Your task to perform on an android device: Go to CNN.com Image 0: 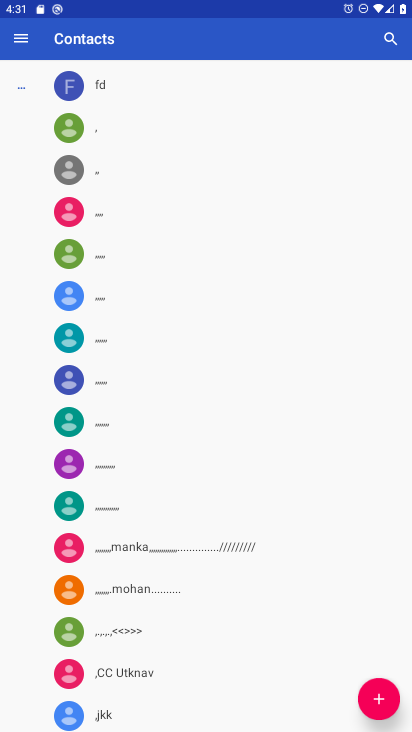
Step 0: press home button
Your task to perform on an android device: Go to CNN.com Image 1: 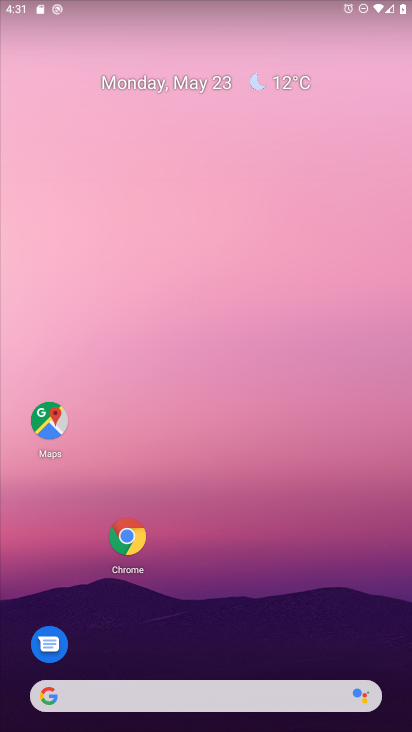
Step 1: click (127, 544)
Your task to perform on an android device: Go to CNN.com Image 2: 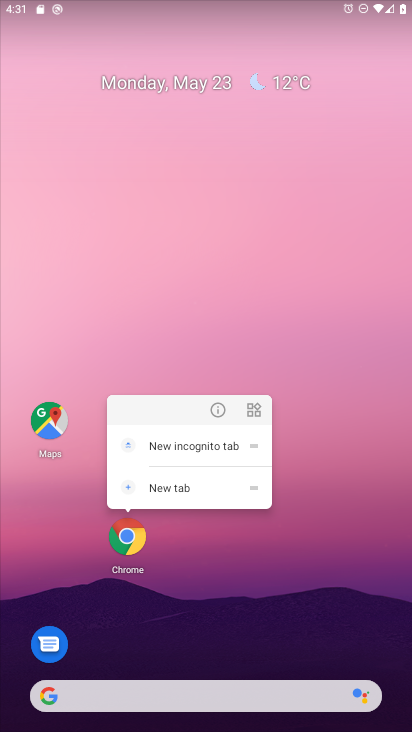
Step 2: click (126, 543)
Your task to perform on an android device: Go to CNN.com Image 3: 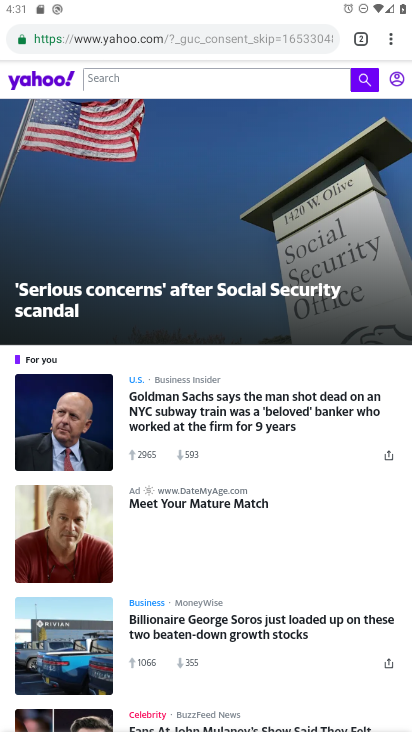
Step 3: click (265, 39)
Your task to perform on an android device: Go to CNN.com Image 4: 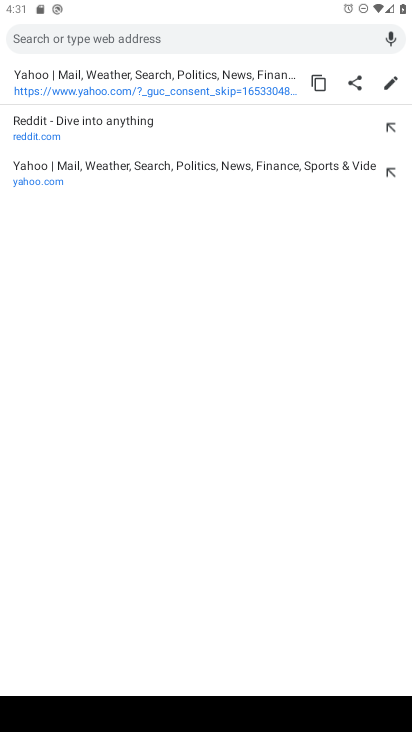
Step 4: type "cnn.com"
Your task to perform on an android device: Go to CNN.com Image 5: 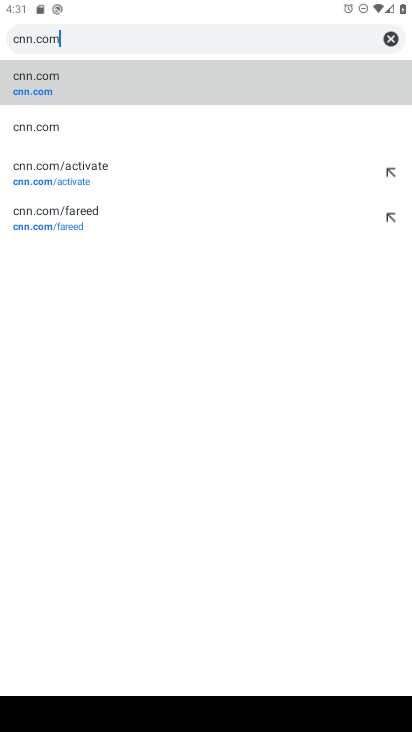
Step 5: click (21, 88)
Your task to perform on an android device: Go to CNN.com Image 6: 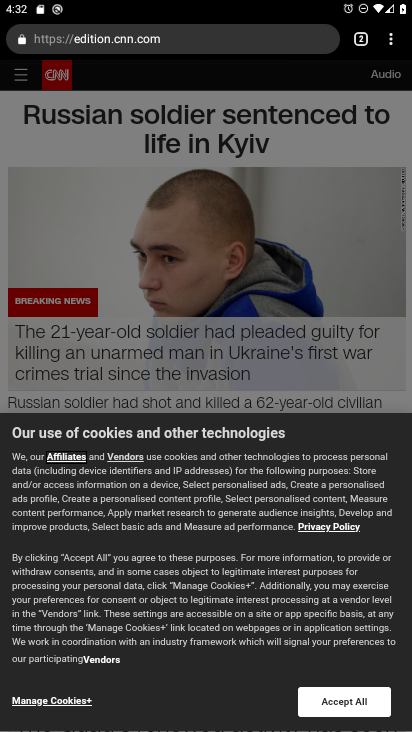
Step 6: task complete